Your task to perform on an android device: Open the map Image 0: 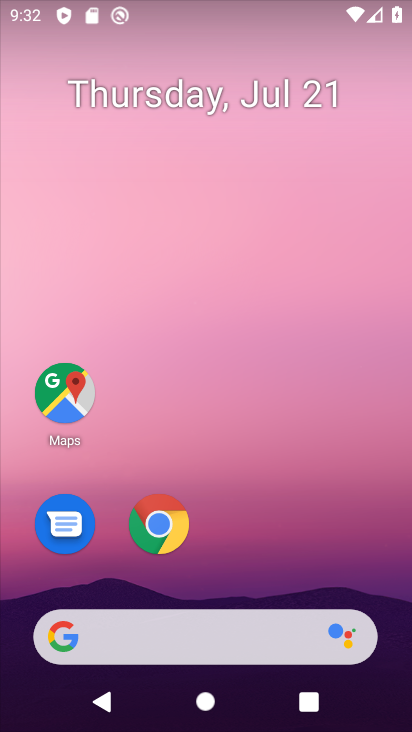
Step 0: press home button
Your task to perform on an android device: Open the map Image 1: 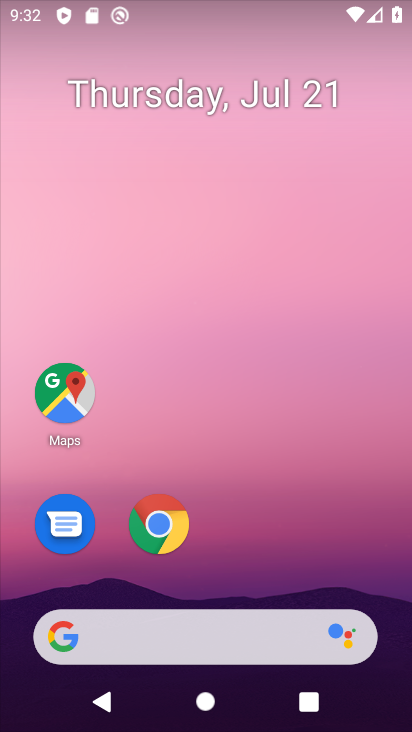
Step 1: click (64, 390)
Your task to perform on an android device: Open the map Image 2: 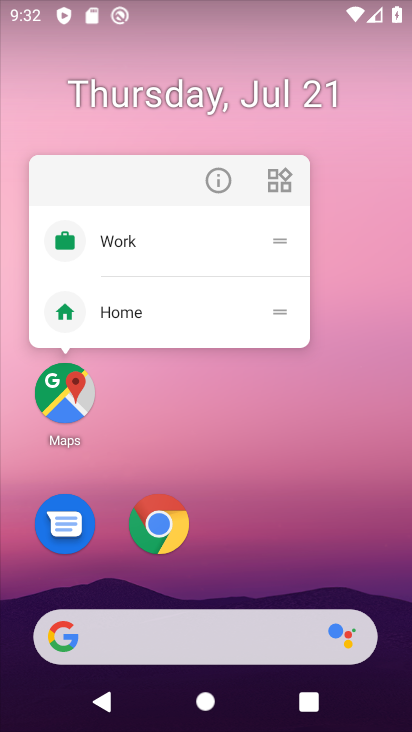
Step 2: click (68, 398)
Your task to perform on an android device: Open the map Image 3: 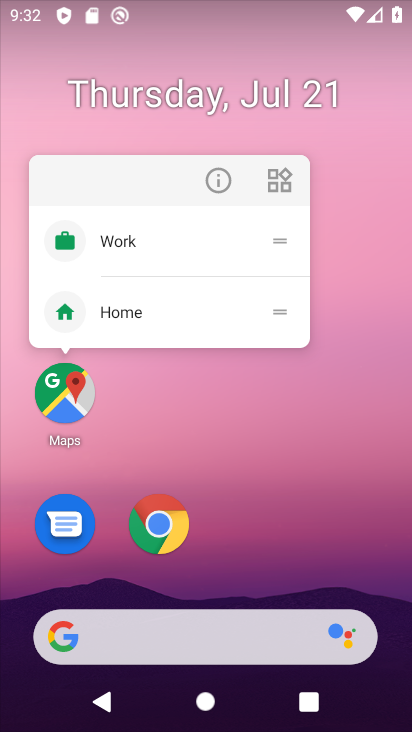
Step 3: click (68, 398)
Your task to perform on an android device: Open the map Image 4: 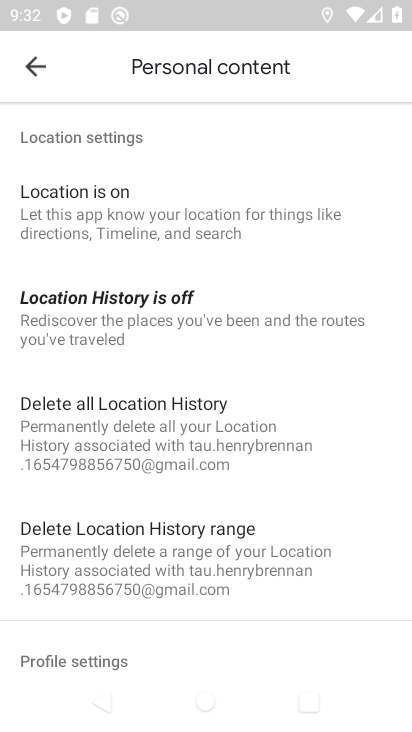
Step 4: click (34, 73)
Your task to perform on an android device: Open the map Image 5: 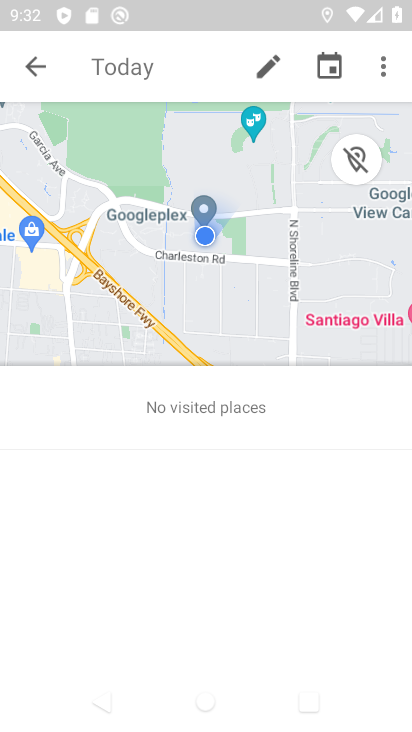
Step 5: click (36, 65)
Your task to perform on an android device: Open the map Image 6: 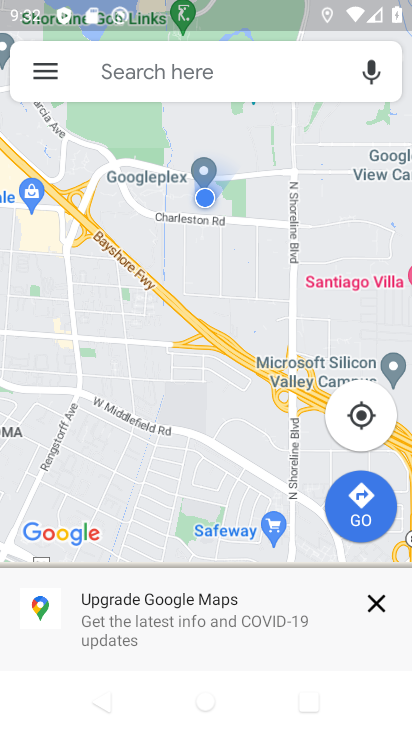
Step 6: click (379, 606)
Your task to perform on an android device: Open the map Image 7: 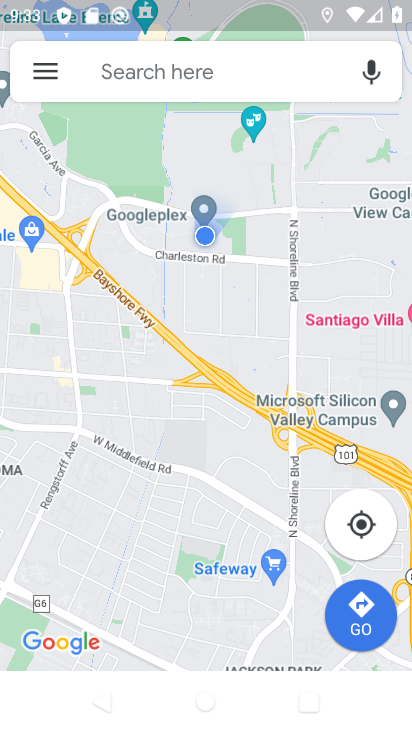
Step 7: task complete